Your task to perform on an android device: Go to privacy settings Image 0: 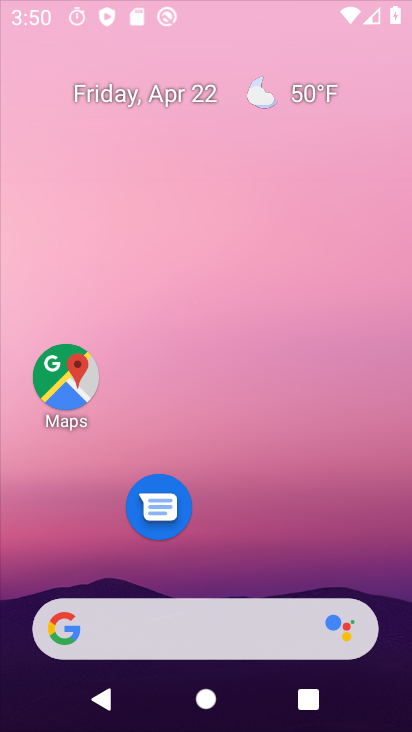
Step 0: click (251, 82)
Your task to perform on an android device: Go to privacy settings Image 1: 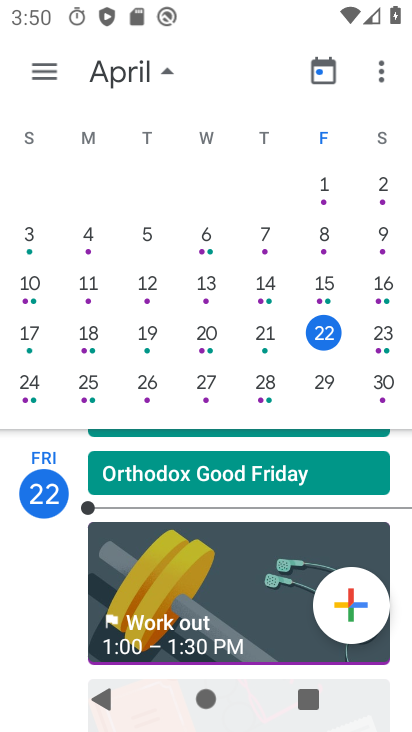
Step 1: press back button
Your task to perform on an android device: Go to privacy settings Image 2: 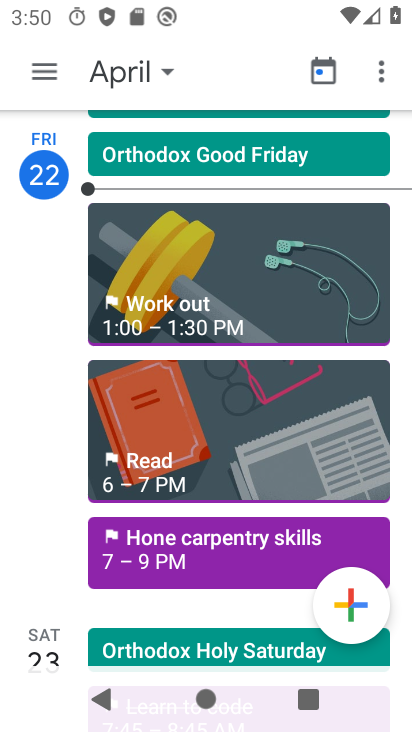
Step 2: press home button
Your task to perform on an android device: Go to privacy settings Image 3: 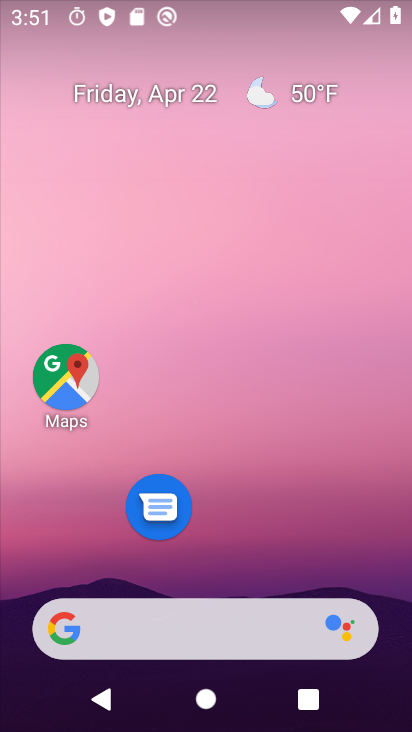
Step 3: drag from (194, 537) to (292, 53)
Your task to perform on an android device: Go to privacy settings Image 4: 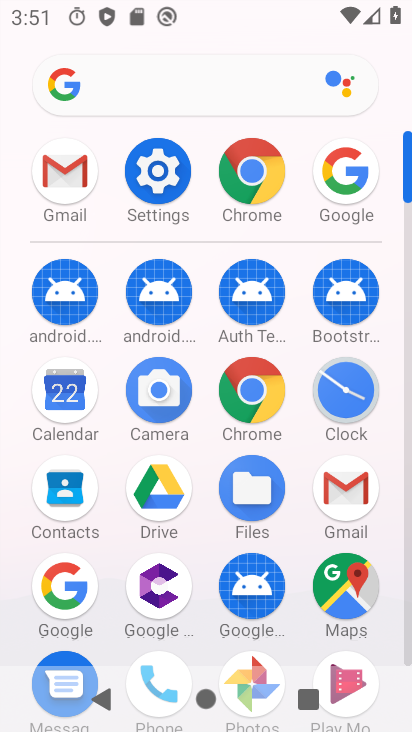
Step 4: click (155, 178)
Your task to perform on an android device: Go to privacy settings Image 5: 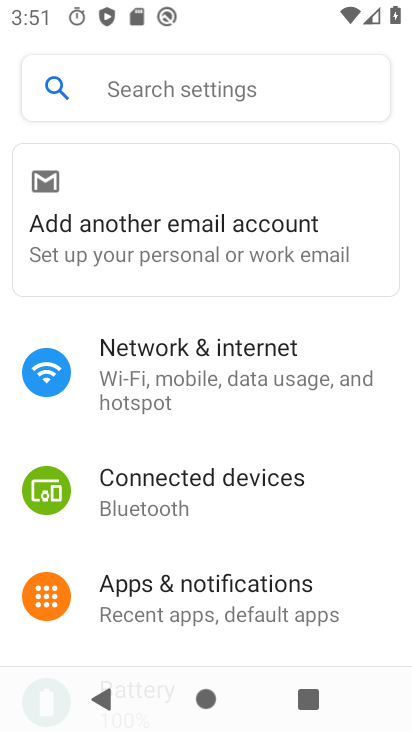
Step 5: drag from (194, 569) to (246, 165)
Your task to perform on an android device: Go to privacy settings Image 6: 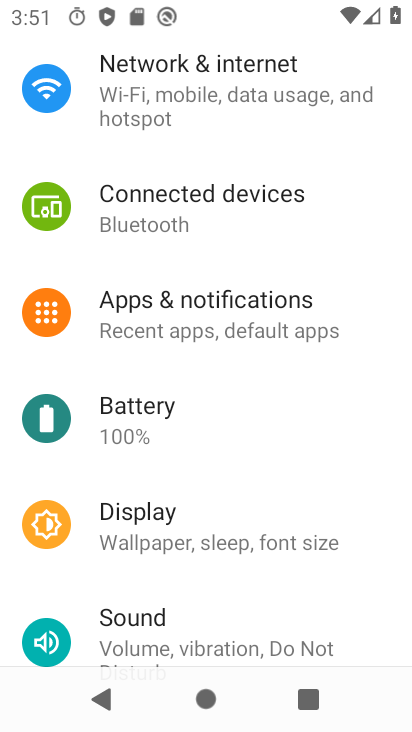
Step 6: drag from (231, 575) to (318, 43)
Your task to perform on an android device: Go to privacy settings Image 7: 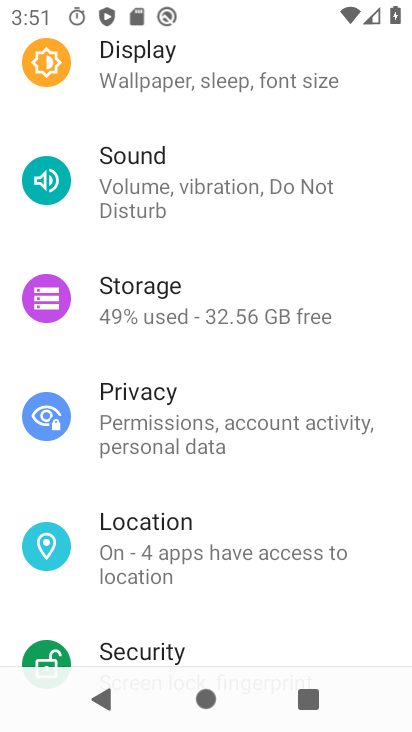
Step 7: click (175, 433)
Your task to perform on an android device: Go to privacy settings Image 8: 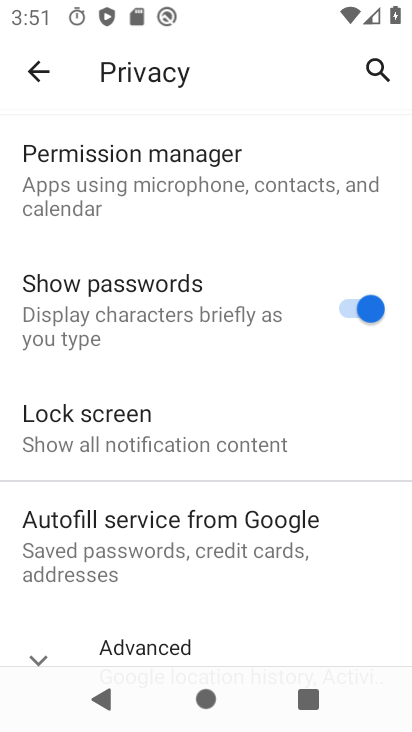
Step 8: task complete